Your task to perform on an android device: Open Amazon Image 0: 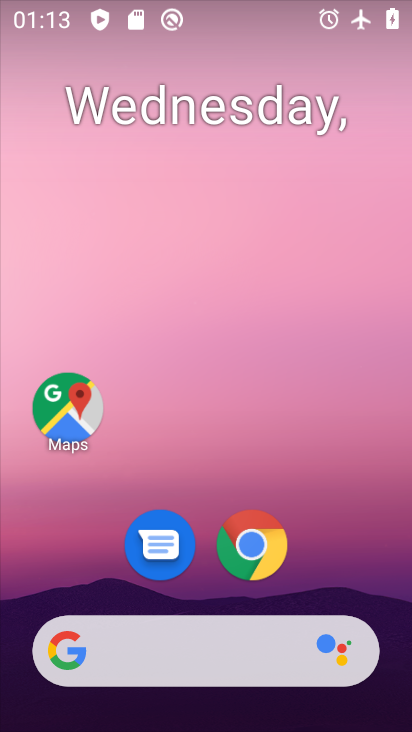
Step 0: click (250, 538)
Your task to perform on an android device: Open Amazon Image 1: 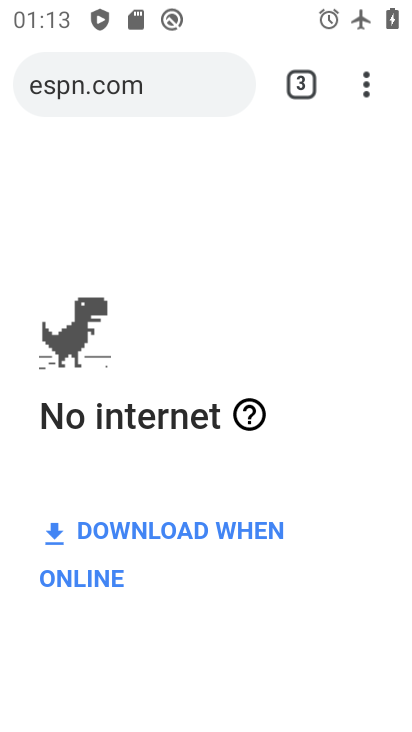
Step 1: click (189, 77)
Your task to perform on an android device: Open Amazon Image 2: 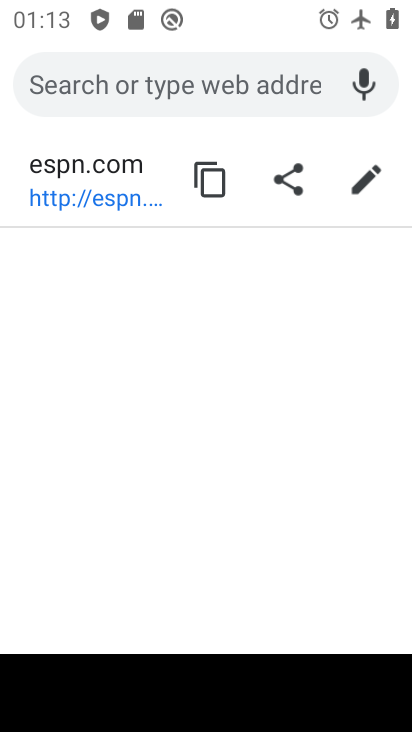
Step 2: type "amazon"
Your task to perform on an android device: Open Amazon Image 3: 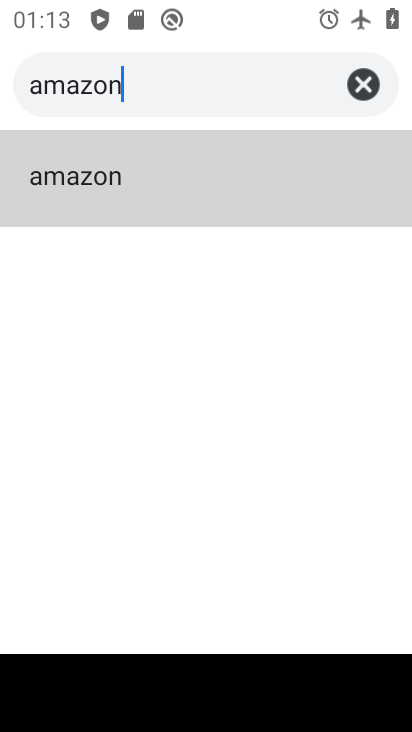
Step 3: click (61, 179)
Your task to perform on an android device: Open Amazon Image 4: 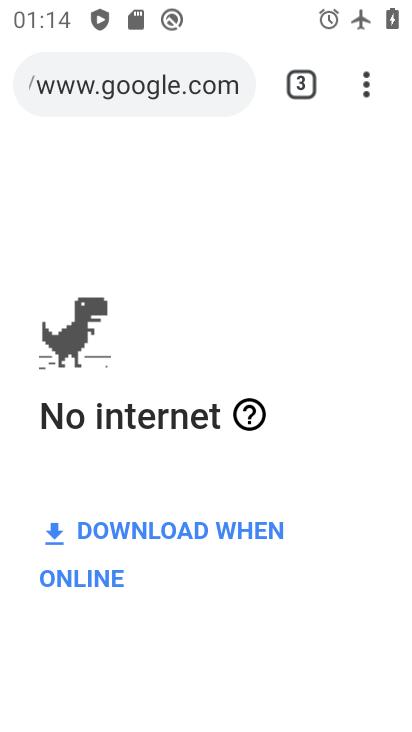
Step 4: task complete